Your task to perform on an android device: Go to location settings Image 0: 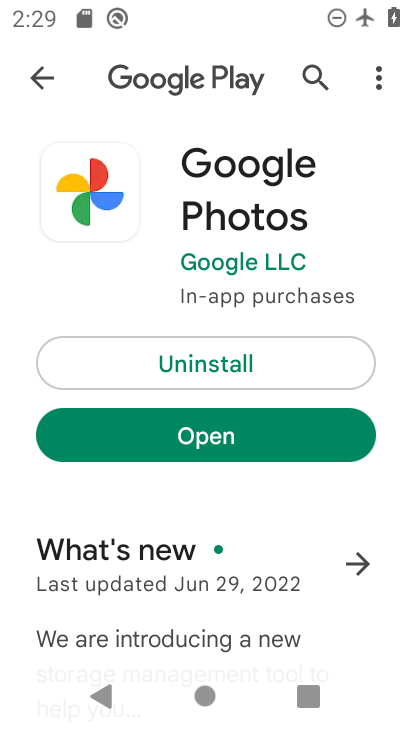
Step 0: press home button
Your task to perform on an android device: Go to location settings Image 1: 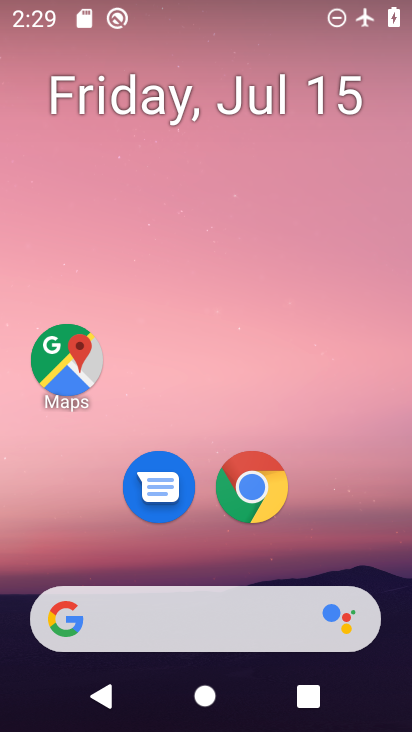
Step 1: drag from (217, 650) to (206, 60)
Your task to perform on an android device: Go to location settings Image 2: 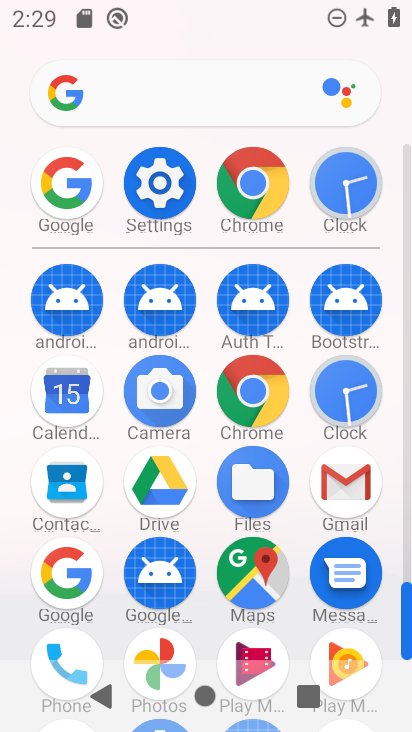
Step 2: click (180, 187)
Your task to perform on an android device: Go to location settings Image 3: 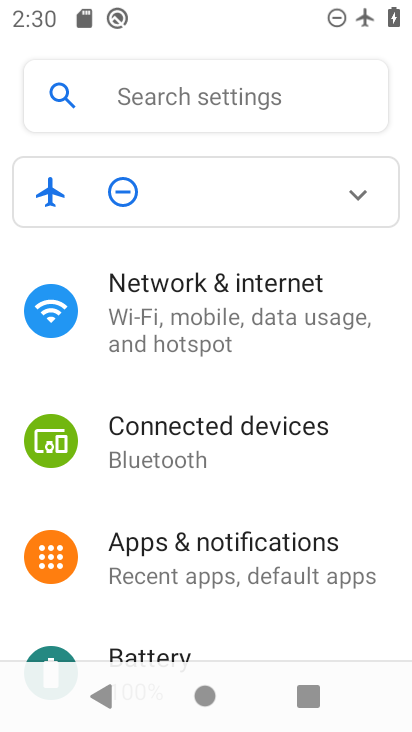
Step 3: drag from (162, 570) to (180, 138)
Your task to perform on an android device: Go to location settings Image 4: 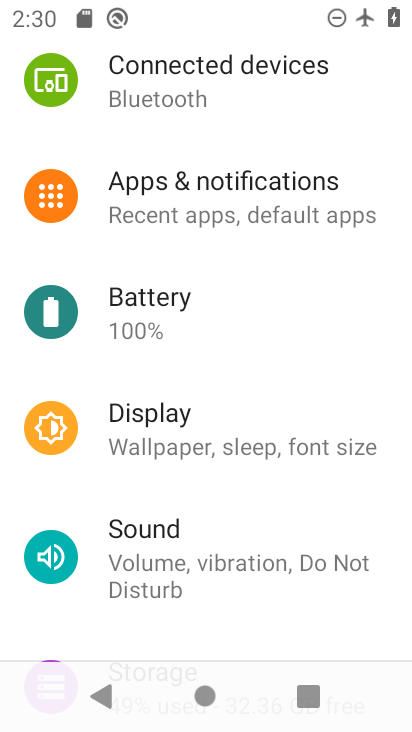
Step 4: drag from (185, 540) to (208, 200)
Your task to perform on an android device: Go to location settings Image 5: 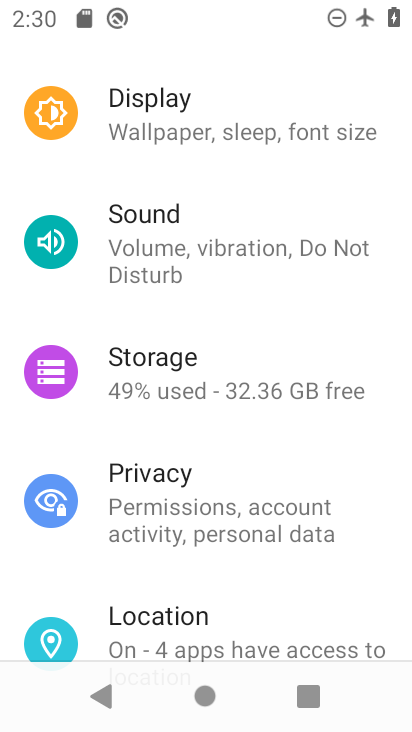
Step 5: click (172, 624)
Your task to perform on an android device: Go to location settings Image 6: 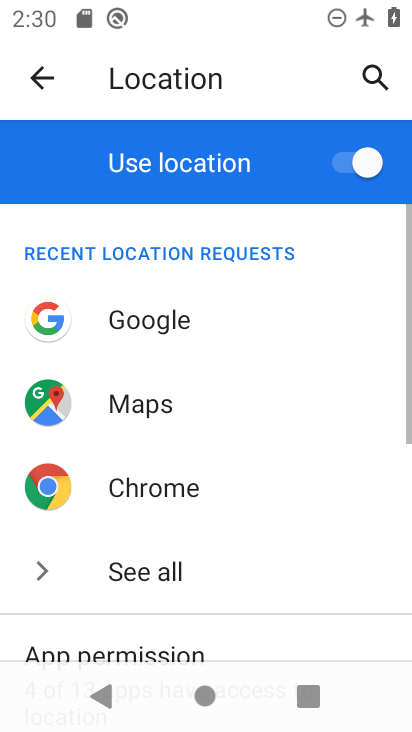
Step 6: task complete